Your task to perform on an android device: Open eBay Image 0: 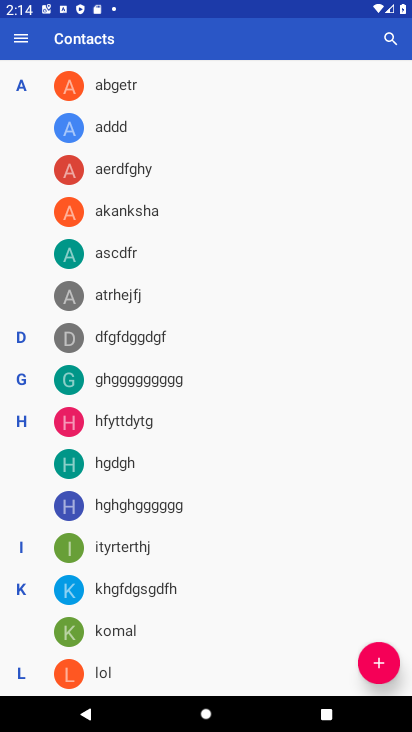
Step 0: press home button
Your task to perform on an android device: Open eBay Image 1: 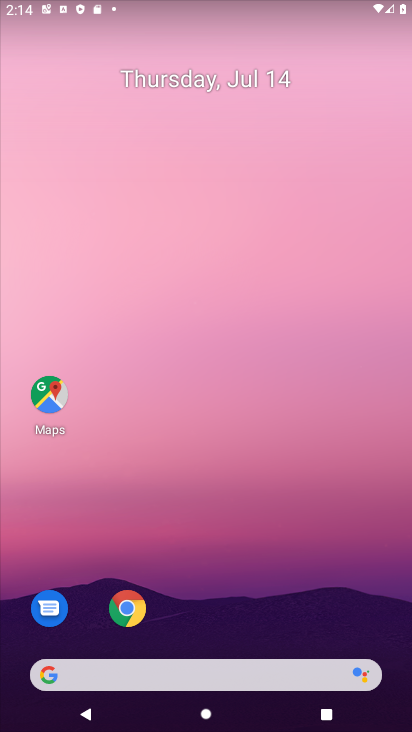
Step 1: click (127, 612)
Your task to perform on an android device: Open eBay Image 2: 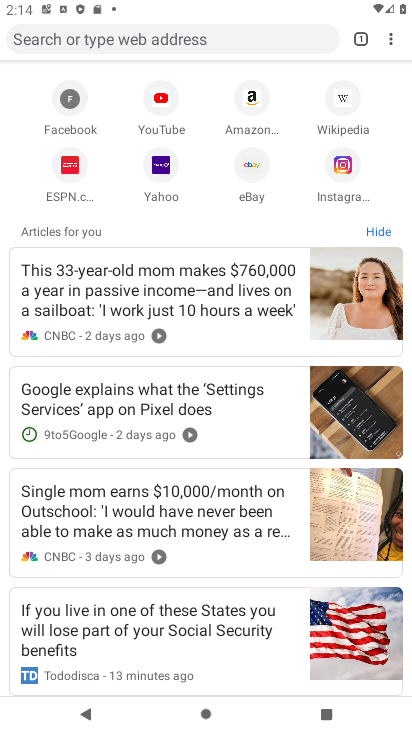
Step 2: click (111, 34)
Your task to perform on an android device: Open eBay Image 3: 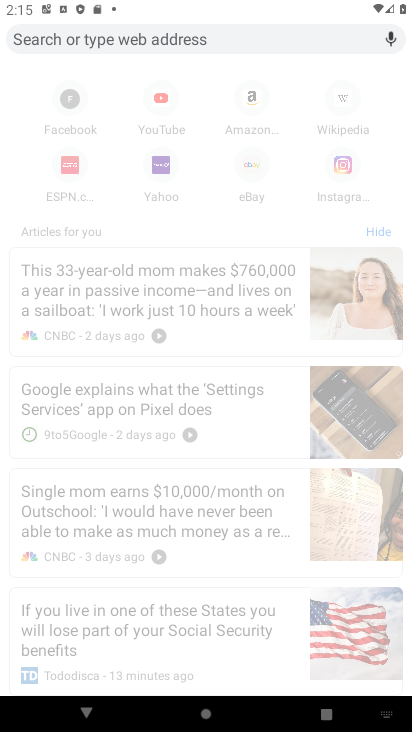
Step 3: type "eBay"
Your task to perform on an android device: Open eBay Image 4: 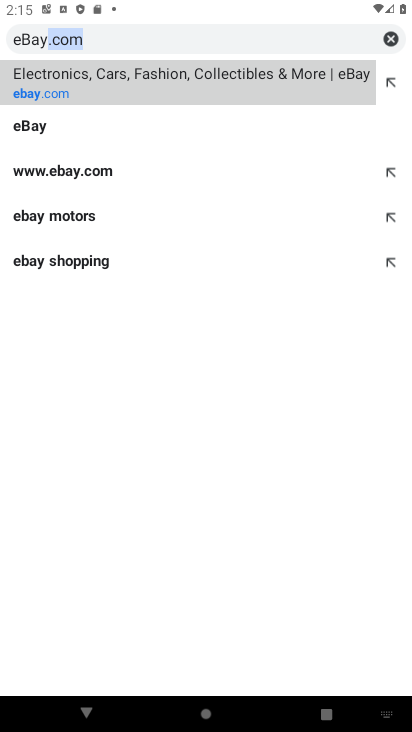
Step 4: click (46, 71)
Your task to perform on an android device: Open eBay Image 5: 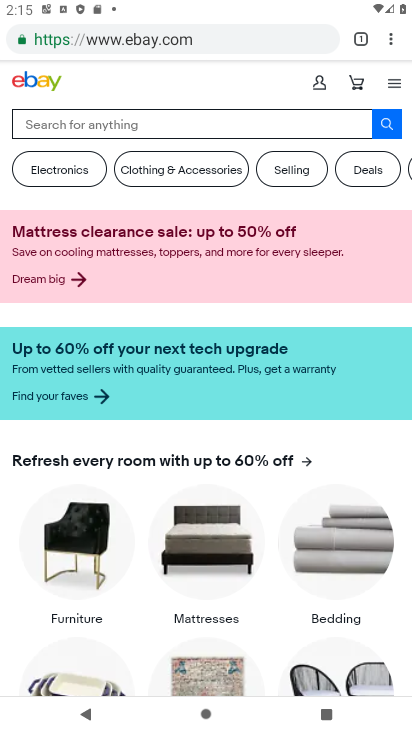
Step 5: task complete